Your task to perform on an android device: turn off sleep mode Image 0: 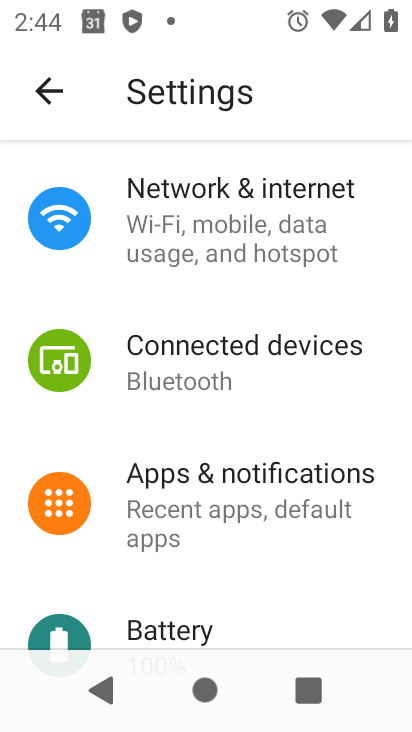
Step 0: drag from (342, 609) to (340, 222)
Your task to perform on an android device: turn off sleep mode Image 1: 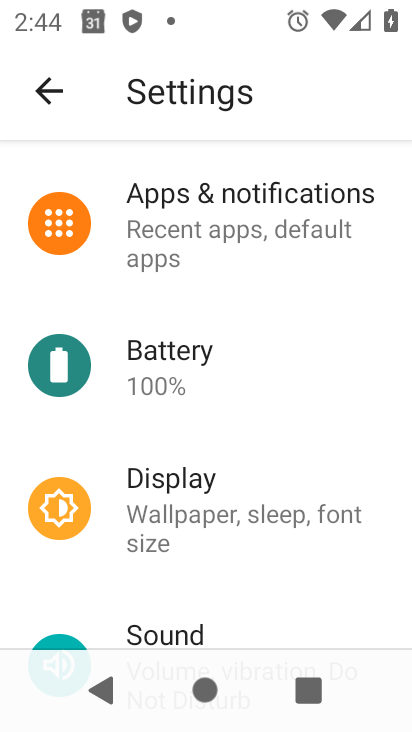
Step 1: click (194, 503)
Your task to perform on an android device: turn off sleep mode Image 2: 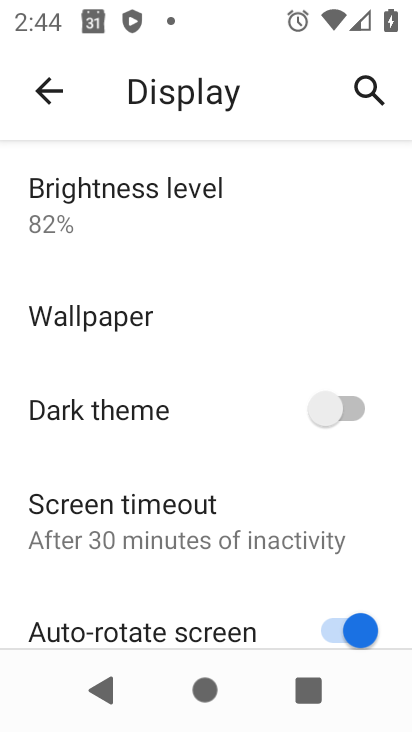
Step 2: drag from (306, 599) to (251, 227)
Your task to perform on an android device: turn off sleep mode Image 3: 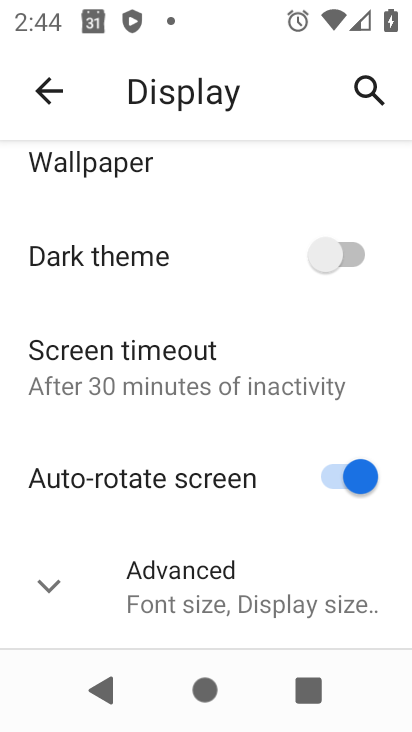
Step 3: click (52, 587)
Your task to perform on an android device: turn off sleep mode Image 4: 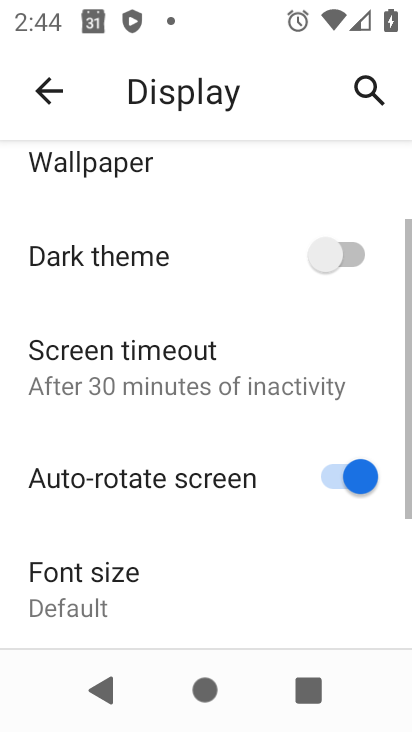
Step 4: task complete